Your task to perform on an android device: turn off data saver in the chrome app Image 0: 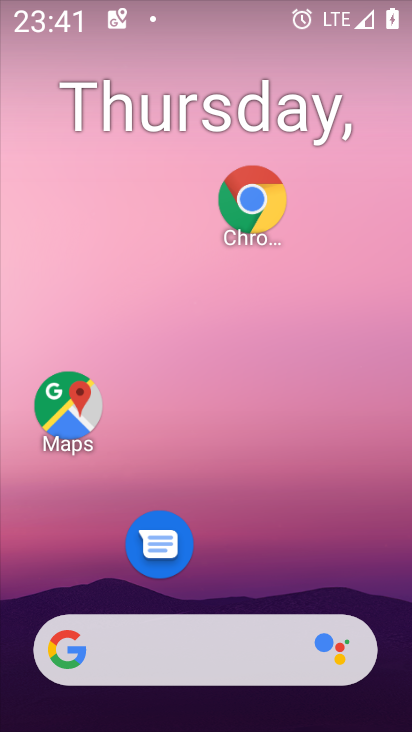
Step 0: click (263, 203)
Your task to perform on an android device: turn off data saver in the chrome app Image 1: 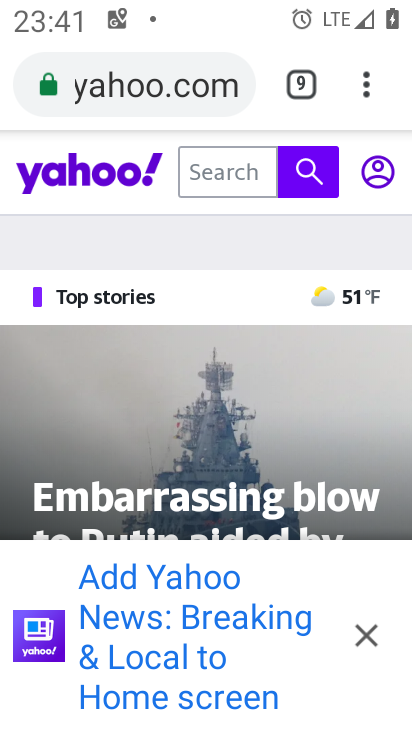
Step 1: click (355, 80)
Your task to perform on an android device: turn off data saver in the chrome app Image 2: 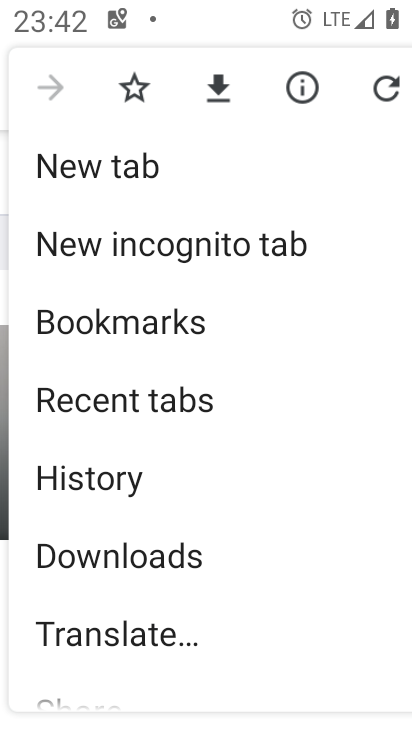
Step 2: drag from (125, 603) to (193, 188)
Your task to perform on an android device: turn off data saver in the chrome app Image 3: 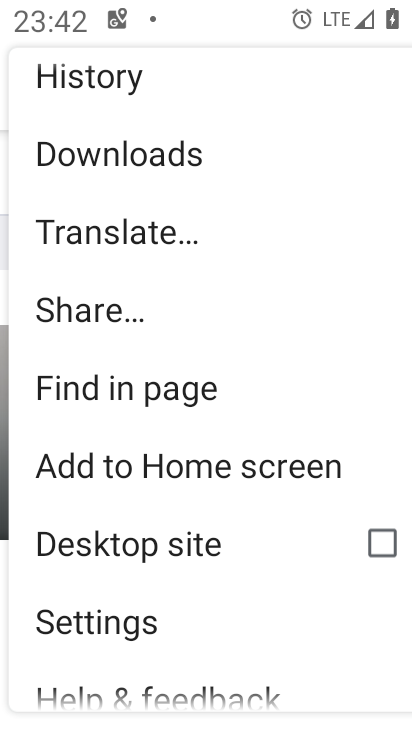
Step 3: click (84, 602)
Your task to perform on an android device: turn off data saver in the chrome app Image 4: 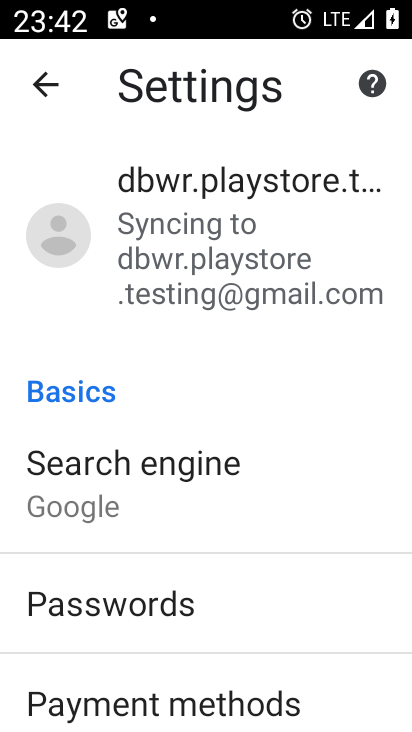
Step 4: drag from (78, 544) to (213, 221)
Your task to perform on an android device: turn off data saver in the chrome app Image 5: 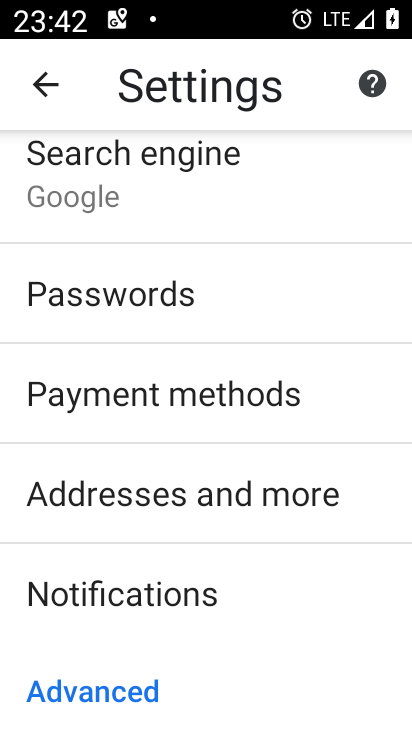
Step 5: drag from (192, 658) to (211, 138)
Your task to perform on an android device: turn off data saver in the chrome app Image 6: 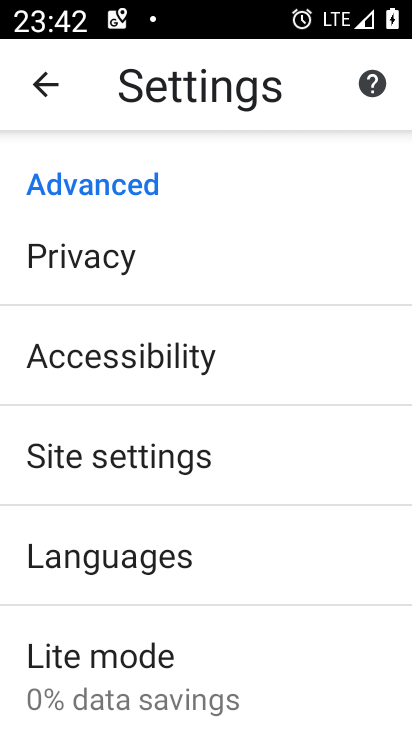
Step 6: click (120, 635)
Your task to perform on an android device: turn off data saver in the chrome app Image 7: 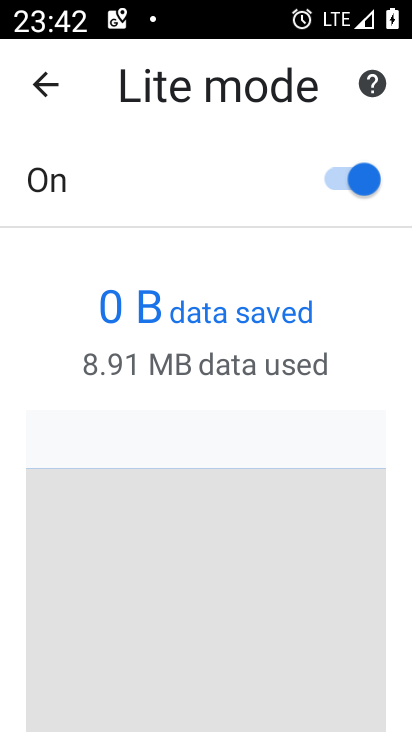
Step 7: click (336, 178)
Your task to perform on an android device: turn off data saver in the chrome app Image 8: 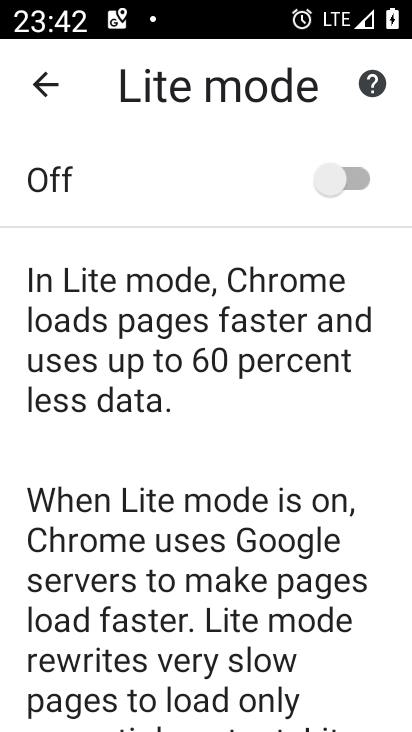
Step 8: task complete